Your task to perform on an android device: open the mobile data screen to see how much data has been used Image 0: 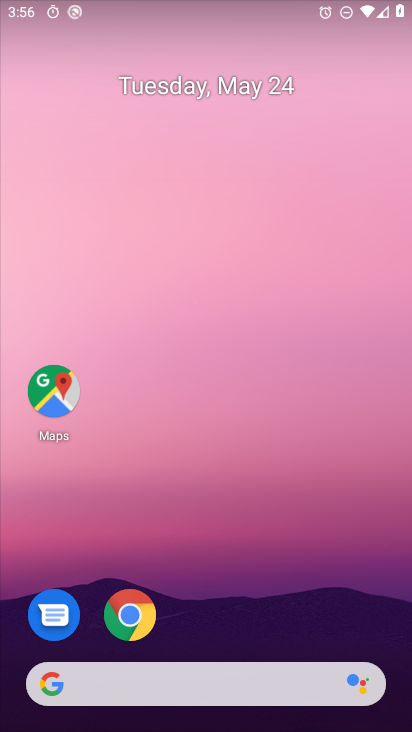
Step 0: drag from (240, 628) to (169, 118)
Your task to perform on an android device: open the mobile data screen to see how much data has been used Image 1: 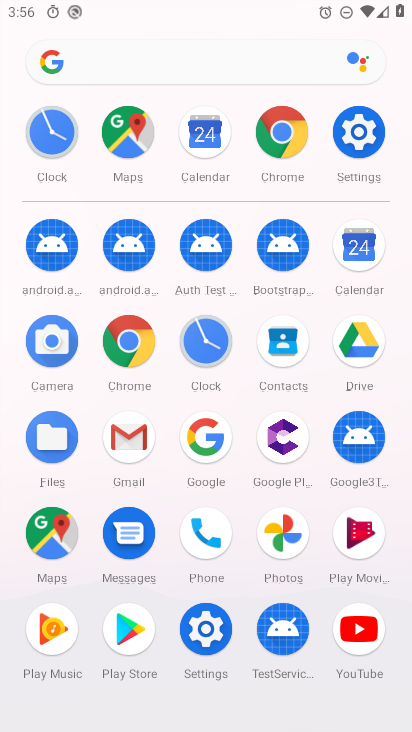
Step 1: click (356, 141)
Your task to perform on an android device: open the mobile data screen to see how much data has been used Image 2: 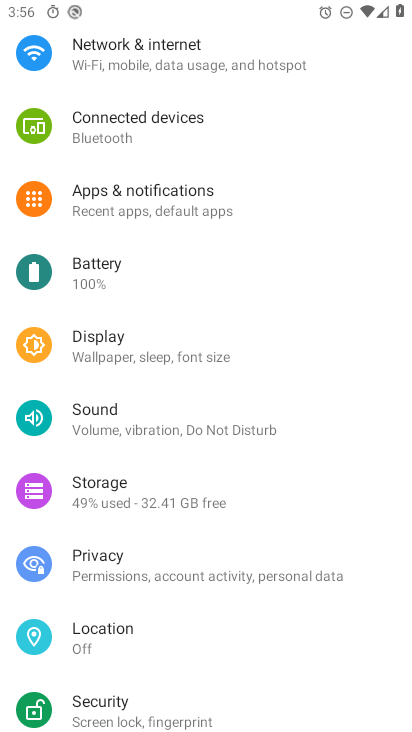
Step 2: click (173, 59)
Your task to perform on an android device: open the mobile data screen to see how much data has been used Image 3: 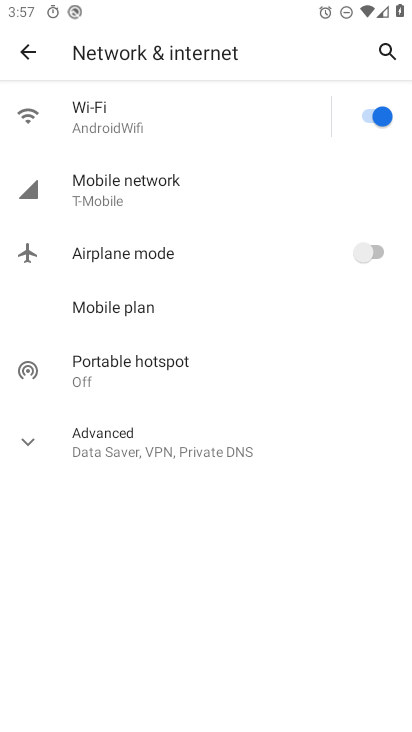
Step 3: click (156, 185)
Your task to perform on an android device: open the mobile data screen to see how much data has been used Image 4: 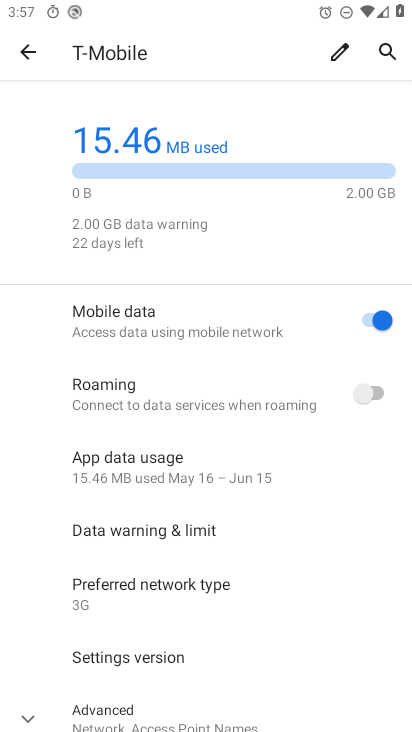
Step 4: task complete